Your task to perform on an android device: What's on my calendar today? Image 0: 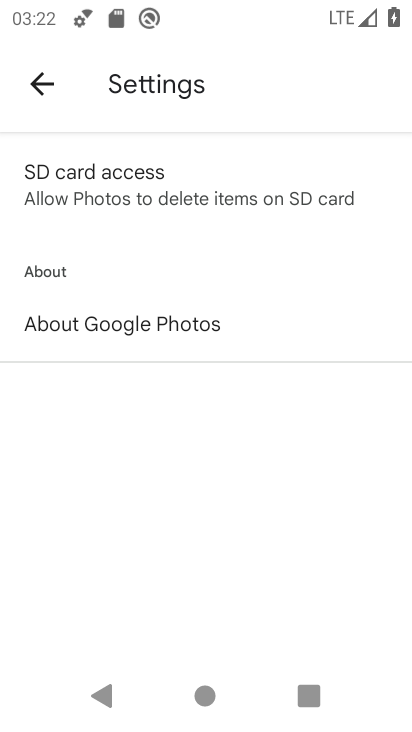
Step 0: press home button
Your task to perform on an android device: What's on my calendar today? Image 1: 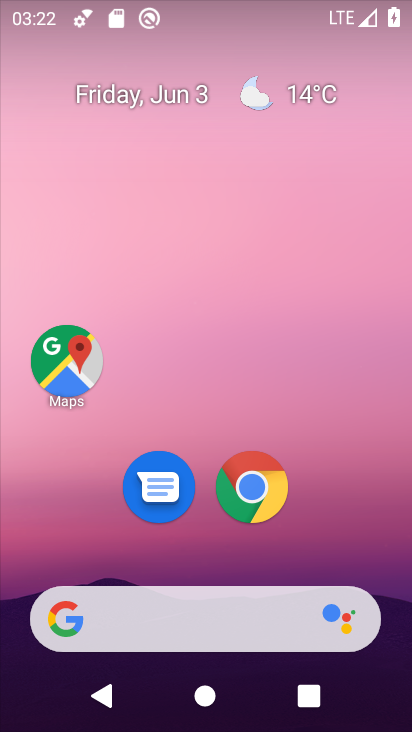
Step 1: click (165, 91)
Your task to perform on an android device: What's on my calendar today? Image 2: 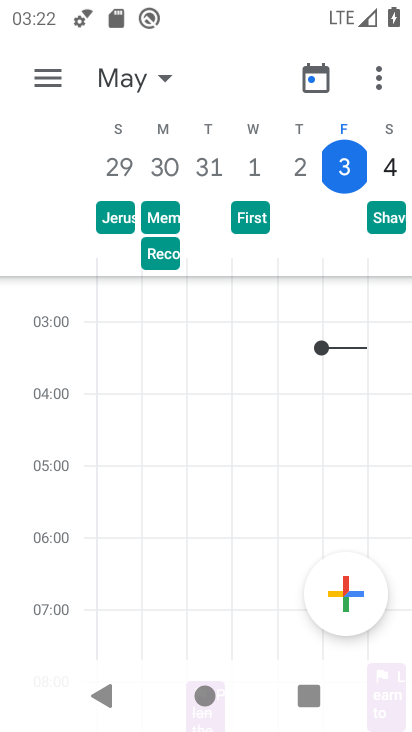
Step 2: task complete